Your task to perform on an android device: turn on bluetooth scan Image 0: 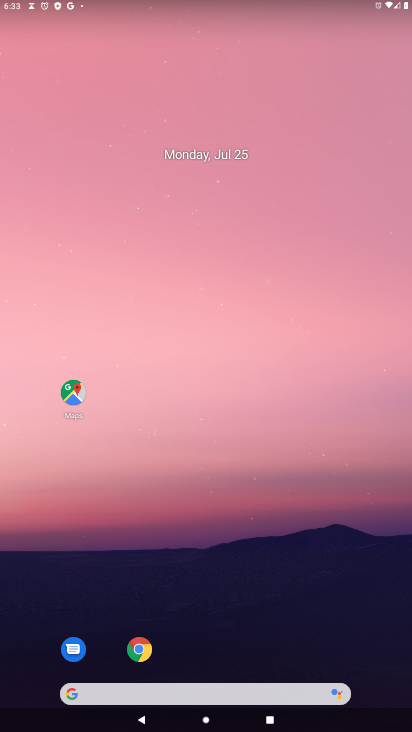
Step 0: drag from (238, 659) to (245, 5)
Your task to perform on an android device: turn on bluetooth scan Image 1: 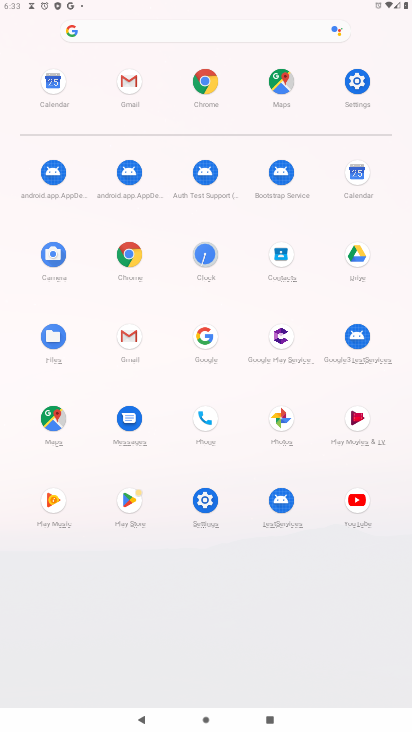
Step 1: click (351, 78)
Your task to perform on an android device: turn on bluetooth scan Image 2: 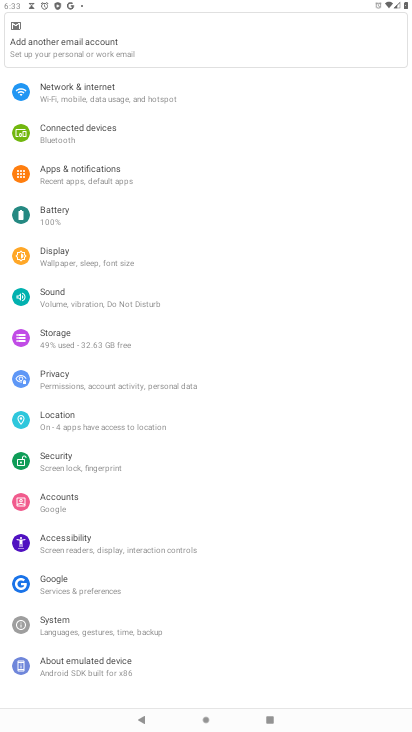
Step 2: click (112, 433)
Your task to perform on an android device: turn on bluetooth scan Image 3: 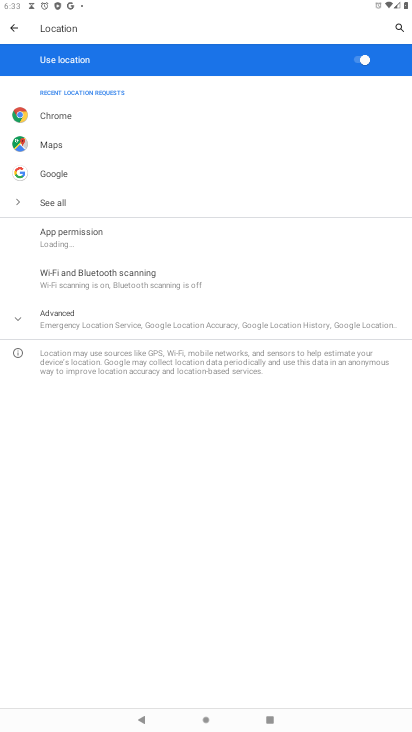
Step 3: click (129, 325)
Your task to perform on an android device: turn on bluetooth scan Image 4: 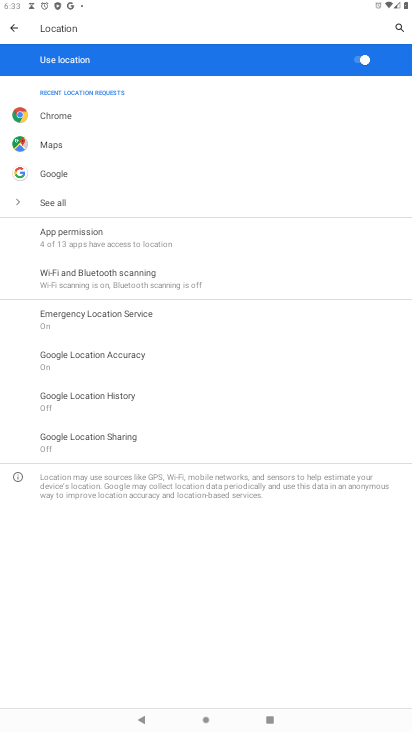
Step 4: click (125, 283)
Your task to perform on an android device: turn on bluetooth scan Image 5: 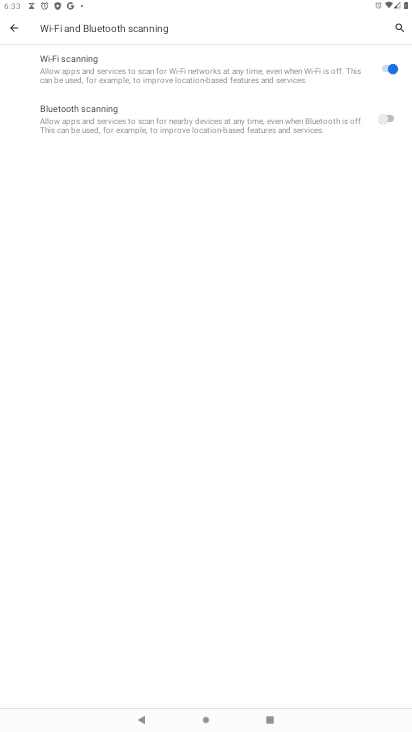
Step 5: click (392, 121)
Your task to perform on an android device: turn on bluetooth scan Image 6: 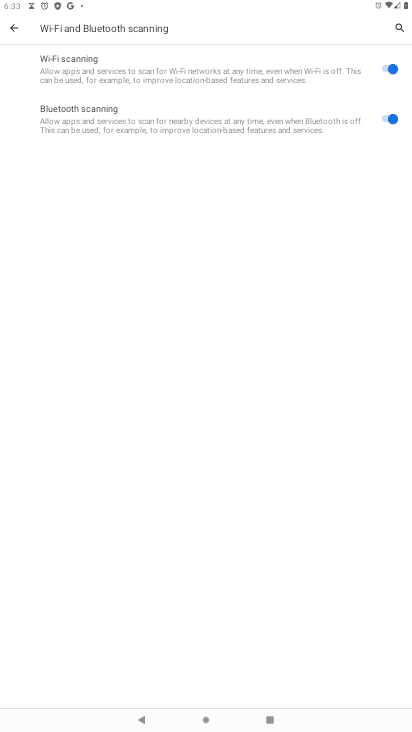
Step 6: task complete